Your task to perform on an android device: turn notification dots on Image 0: 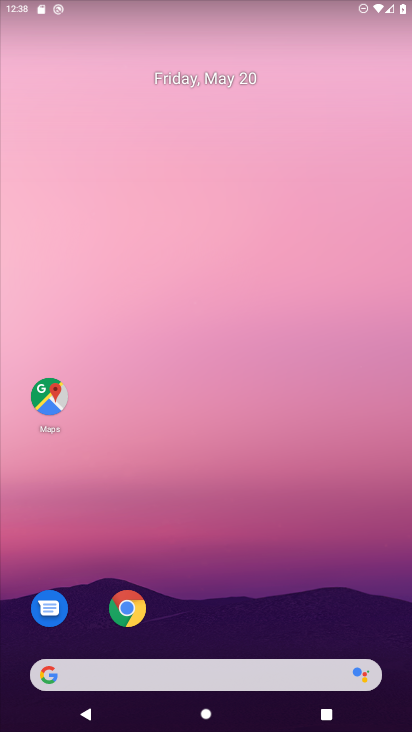
Step 0: press home button
Your task to perform on an android device: turn notification dots on Image 1: 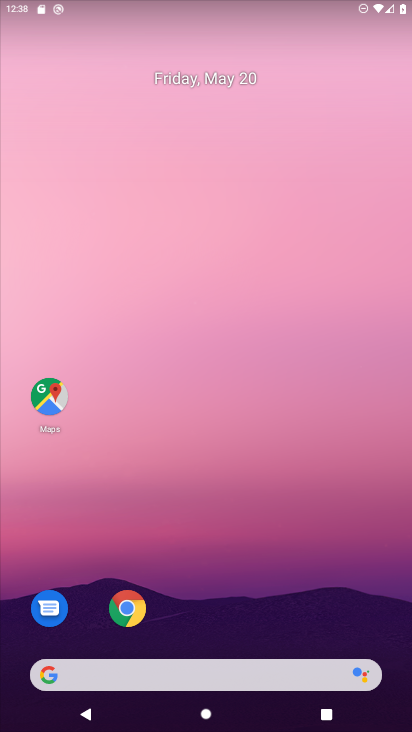
Step 1: drag from (247, 599) to (252, 152)
Your task to perform on an android device: turn notification dots on Image 2: 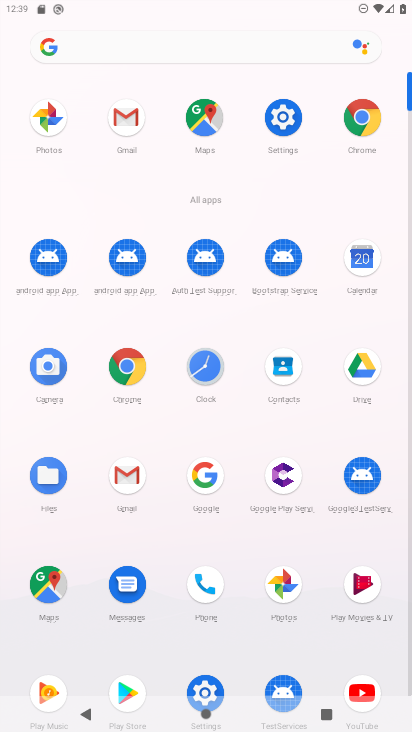
Step 2: click (213, 681)
Your task to perform on an android device: turn notification dots on Image 3: 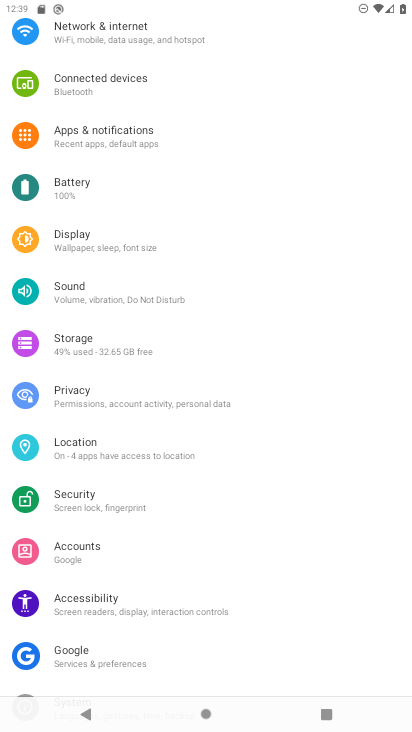
Step 3: click (164, 132)
Your task to perform on an android device: turn notification dots on Image 4: 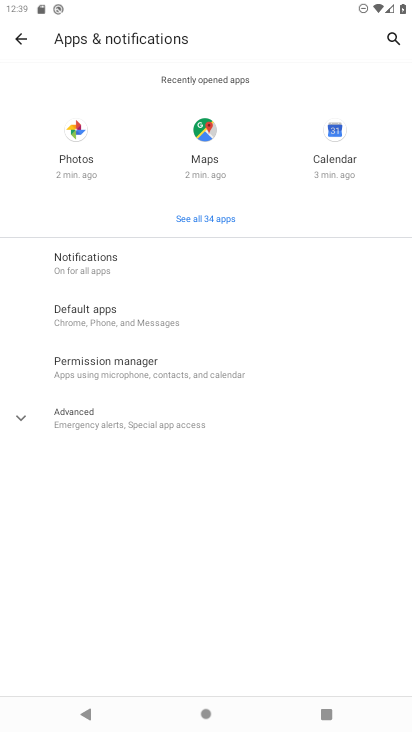
Step 4: click (104, 274)
Your task to perform on an android device: turn notification dots on Image 5: 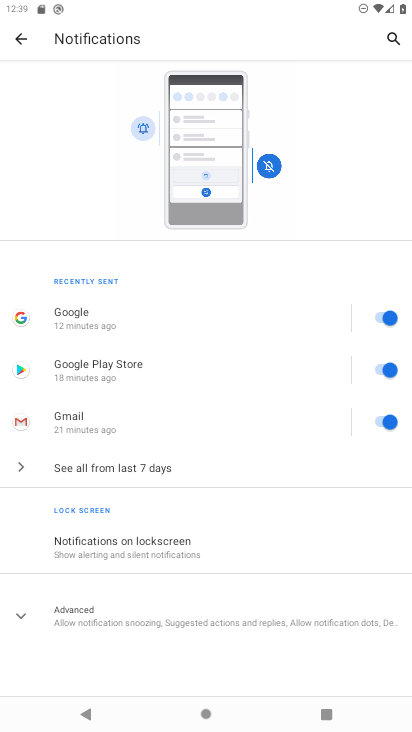
Step 5: click (134, 616)
Your task to perform on an android device: turn notification dots on Image 6: 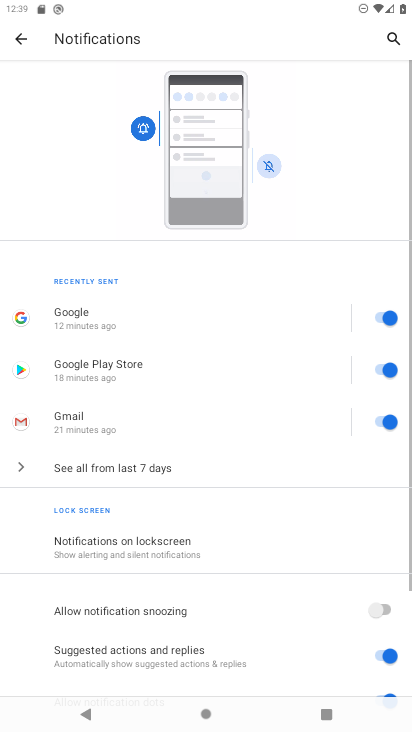
Step 6: task complete